Your task to perform on an android device: Open maps Image 0: 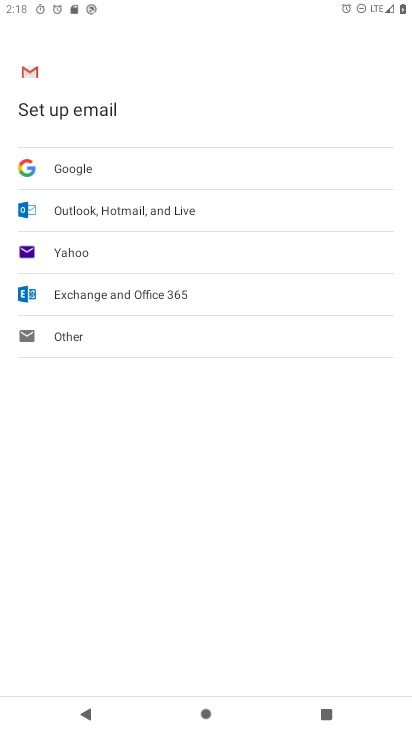
Step 0: press home button
Your task to perform on an android device: Open maps Image 1: 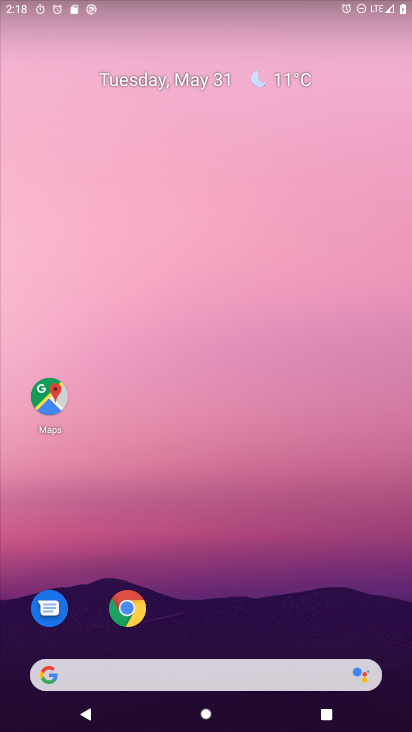
Step 1: click (46, 405)
Your task to perform on an android device: Open maps Image 2: 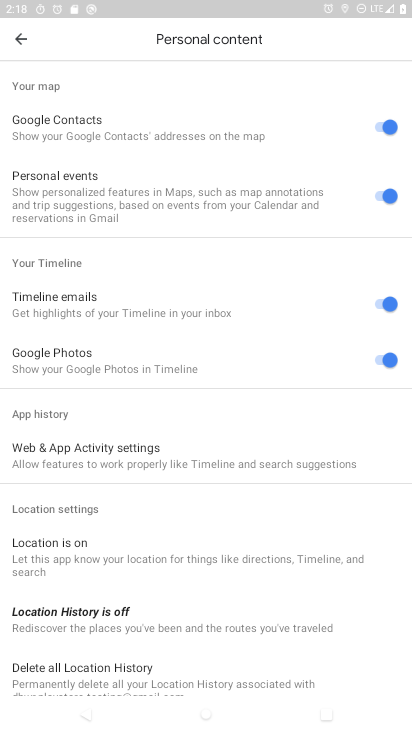
Step 2: click (23, 42)
Your task to perform on an android device: Open maps Image 3: 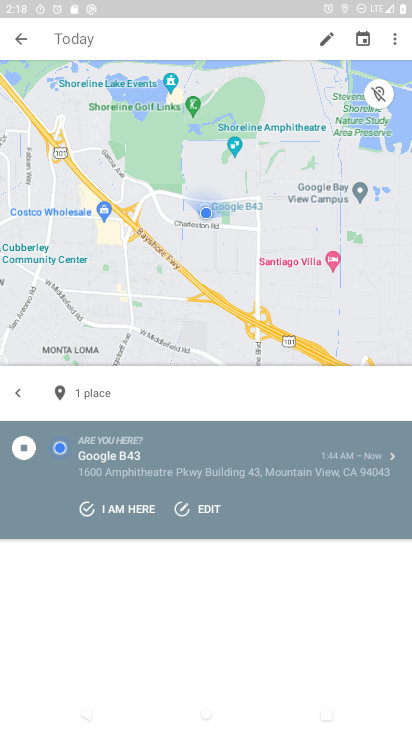
Step 3: click (9, 37)
Your task to perform on an android device: Open maps Image 4: 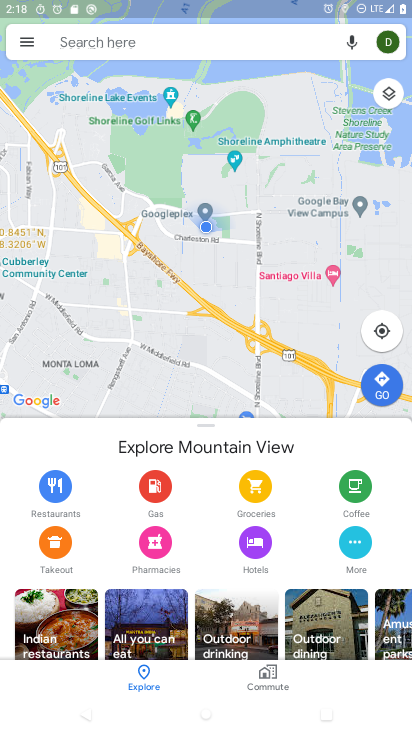
Step 4: task complete